Your task to perform on an android device: check android version Image 0: 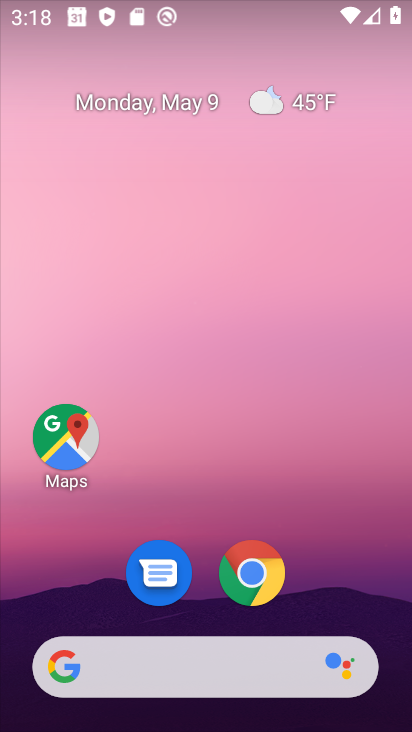
Step 0: drag from (275, 601) to (310, 322)
Your task to perform on an android device: check android version Image 1: 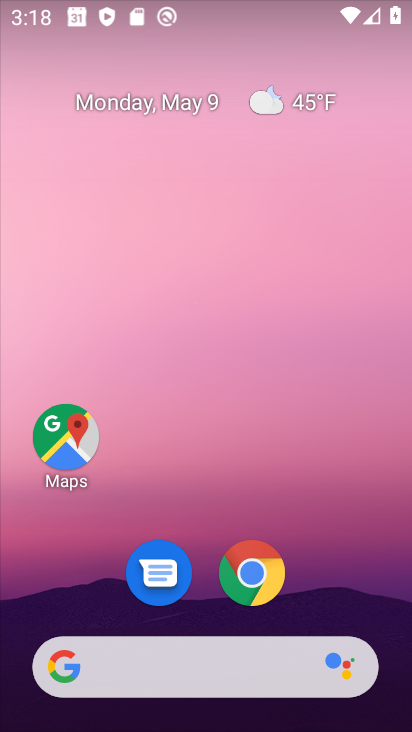
Step 1: drag from (299, 615) to (345, 210)
Your task to perform on an android device: check android version Image 2: 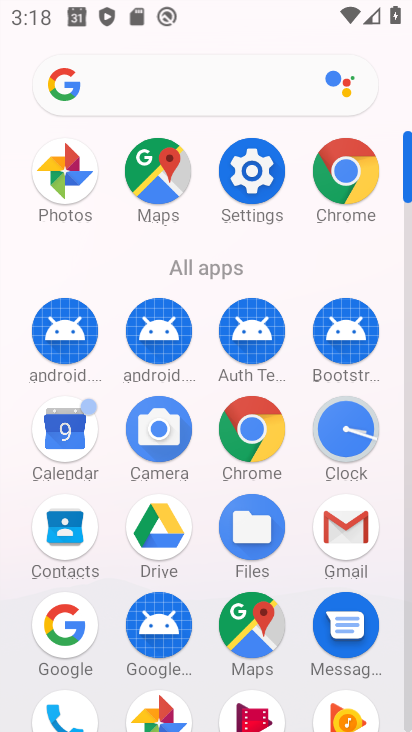
Step 2: click (227, 170)
Your task to perform on an android device: check android version Image 3: 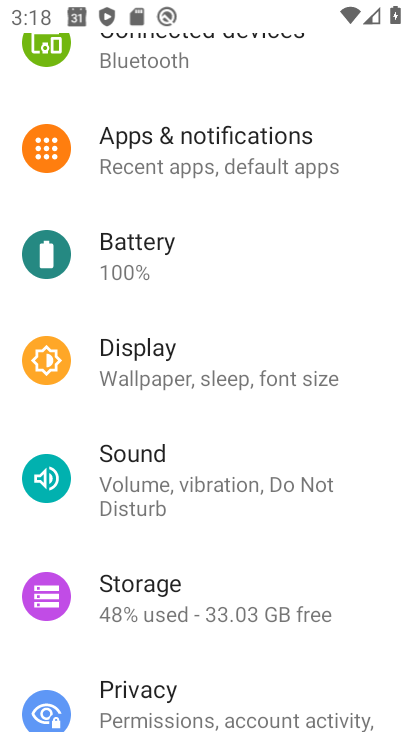
Step 3: drag from (189, 679) to (248, 110)
Your task to perform on an android device: check android version Image 4: 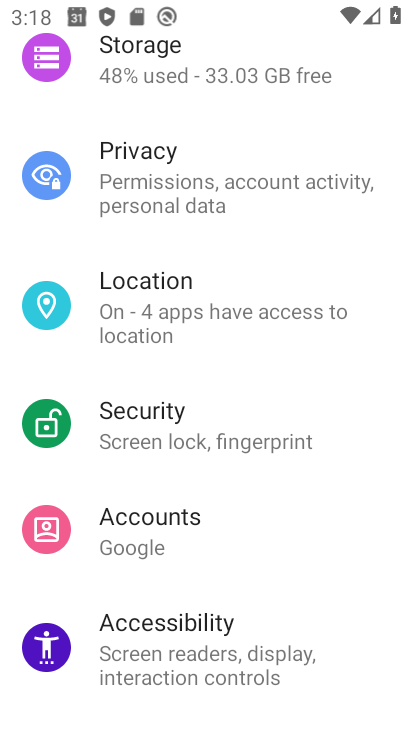
Step 4: drag from (149, 611) to (247, 137)
Your task to perform on an android device: check android version Image 5: 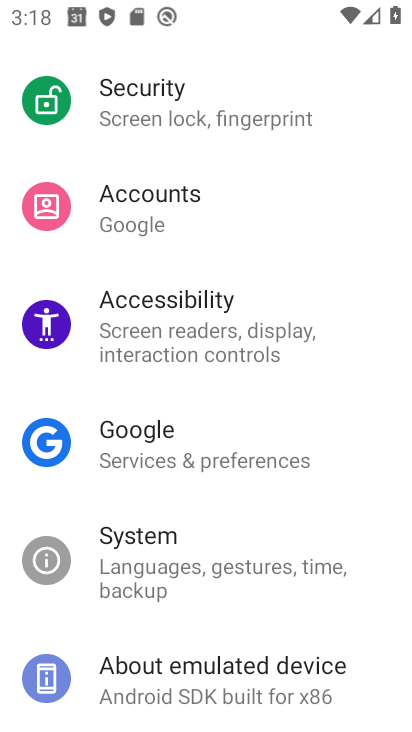
Step 5: click (165, 687)
Your task to perform on an android device: check android version Image 6: 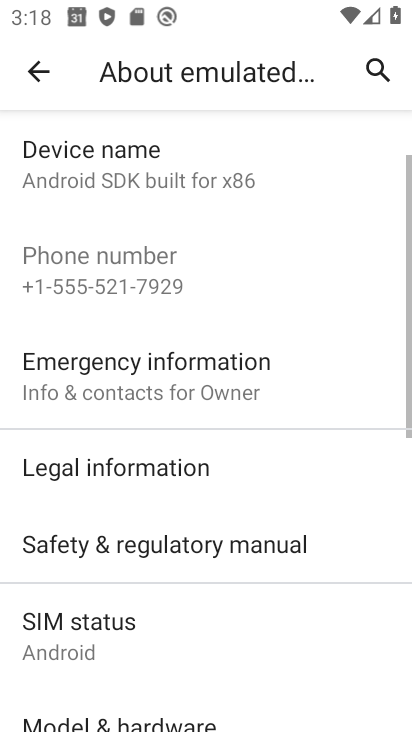
Step 6: drag from (156, 648) to (251, 127)
Your task to perform on an android device: check android version Image 7: 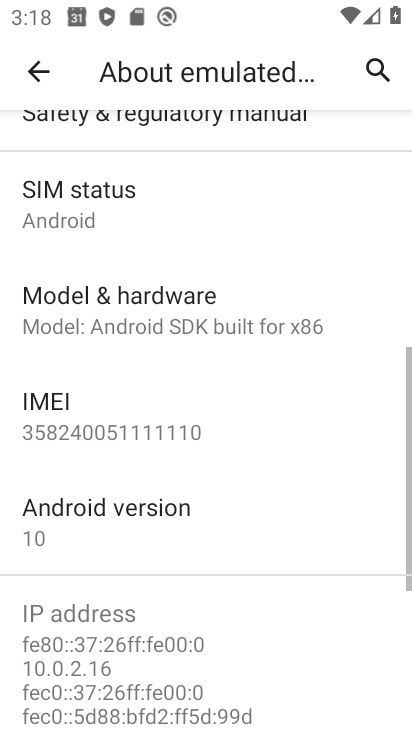
Step 7: click (180, 516)
Your task to perform on an android device: check android version Image 8: 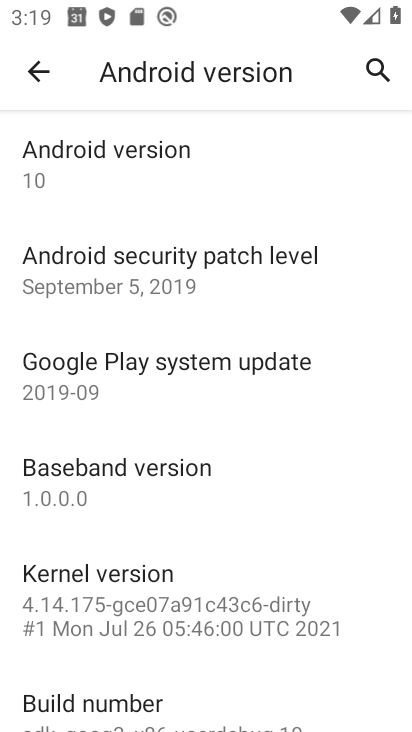
Step 8: click (180, 516)
Your task to perform on an android device: check android version Image 9: 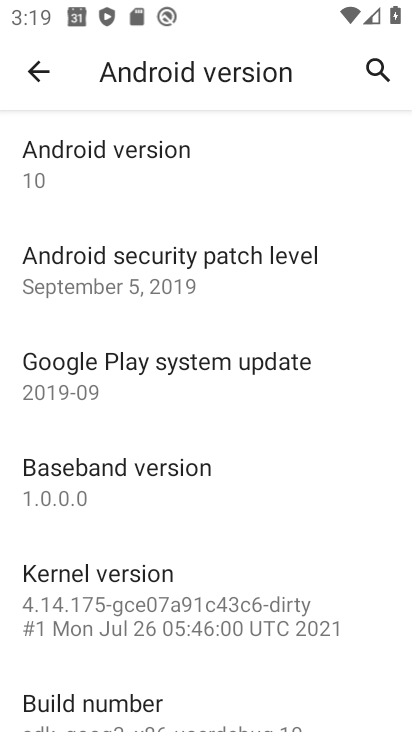
Step 9: task complete